Your task to perform on an android device: Open the calendar app, open the side menu, and click the "Day" option Image 0: 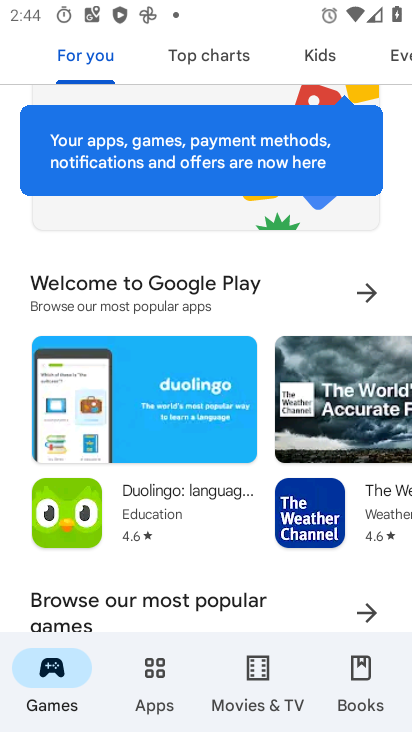
Step 0: press home button
Your task to perform on an android device: Open the calendar app, open the side menu, and click the "Day" option Image 1: 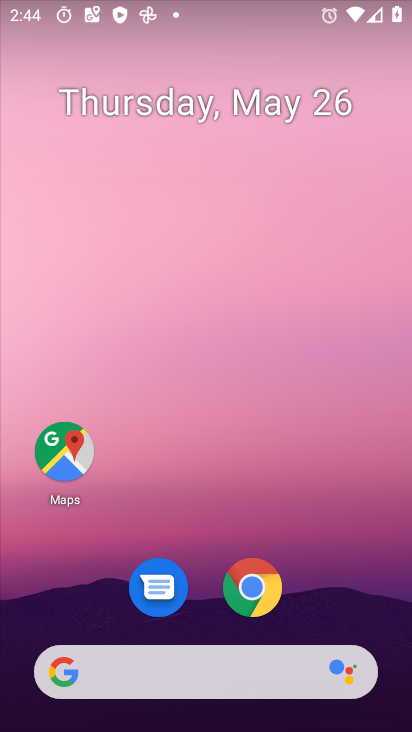
Step 1: drag from (367, 591) to (355, 199)
Your task to perform on an android device: Open the calendar app, open the side menu, and click the "Day" option Image 2: 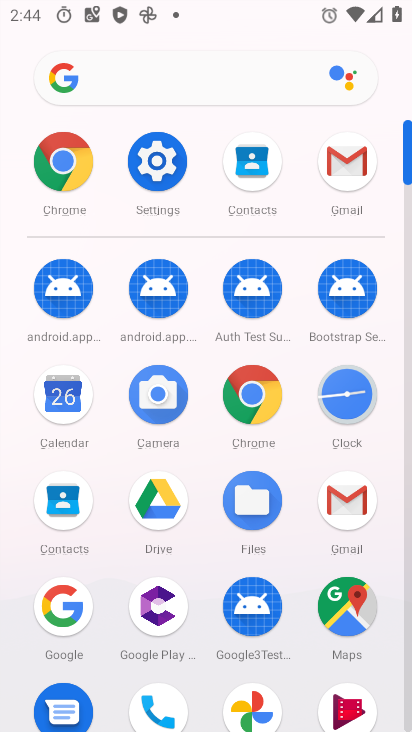
Step 2: click (74, 404)
Your task to perform on an android device: Open the calendar app, open the side menu, and click the "Day" option Image 3: 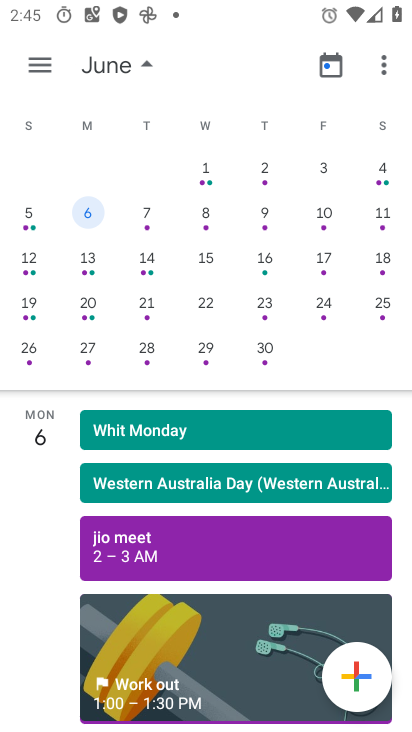
Step 3: click (40, 70)
Your task to perform on an android device: Open the calendar app, open the side menu, and click the "Day" option Image 4: 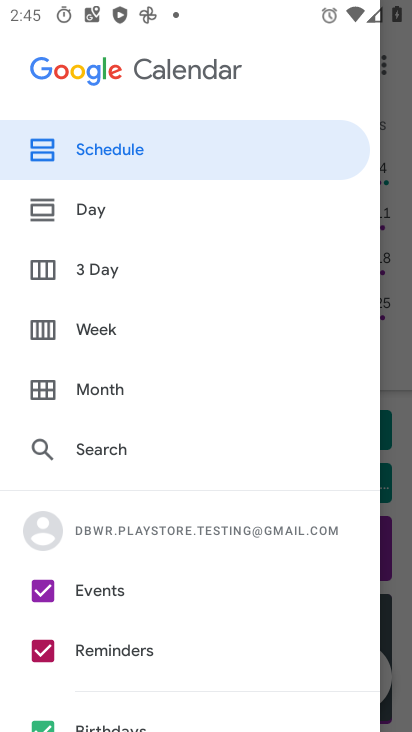
Step 4: click (113, 222)
Your task to perform on an android device: Open the calendar app, open the side menu, and click the "Day" option Image 5: 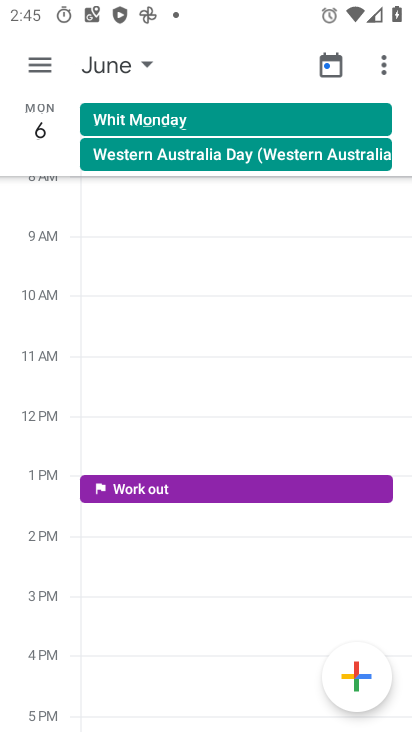
Step 5: task complete